Your task to perform on an android device: What's a good restaurant in San Diego? Image 0: 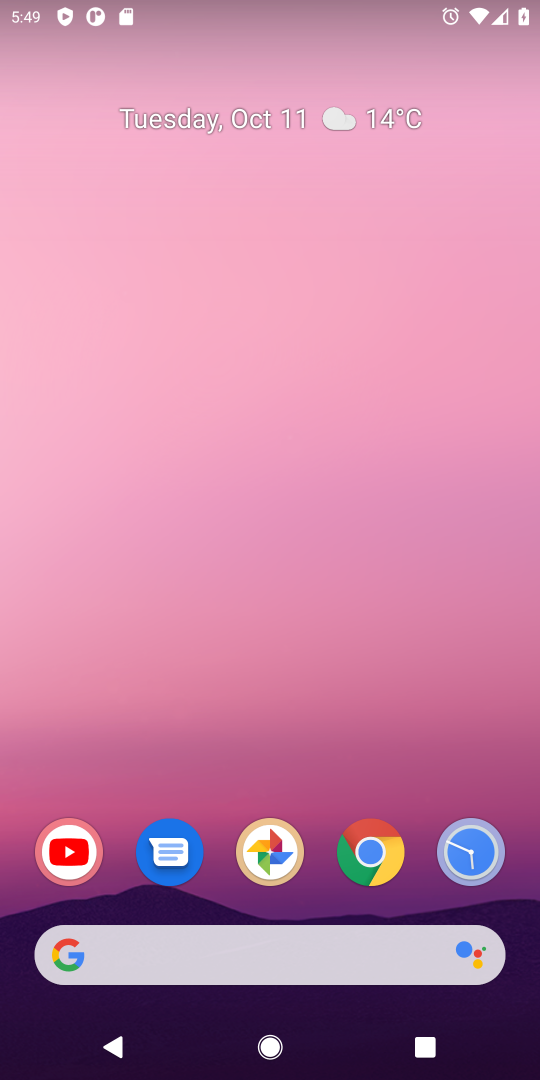
Step 0: click (360, 839)
Your task to perform on an android device: What's a good restaurant in San Diego? Image 1: 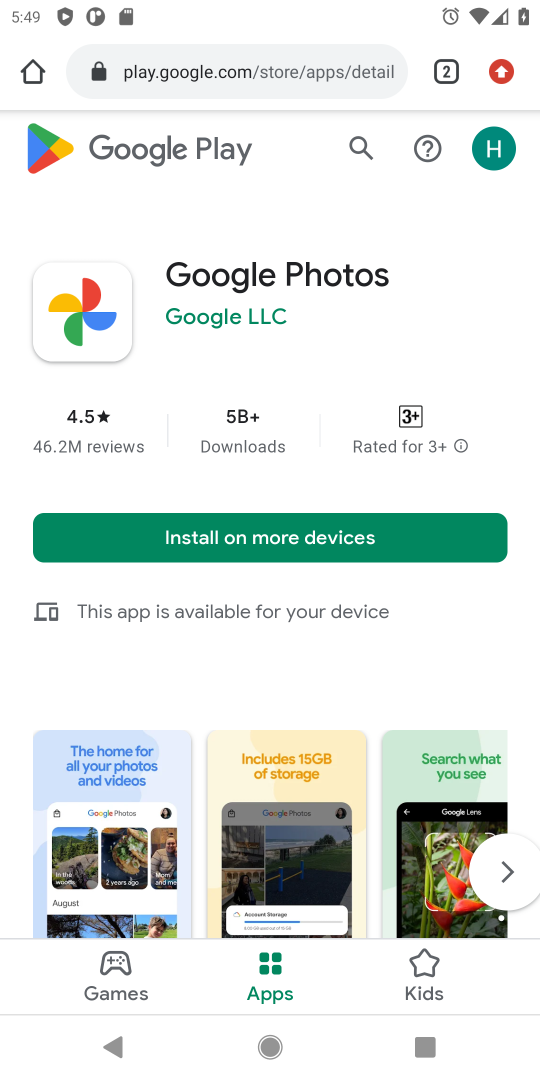
Step 1: press home button
Your task to perform on an android device: What's a good restaurant in San Diego? Image 2: 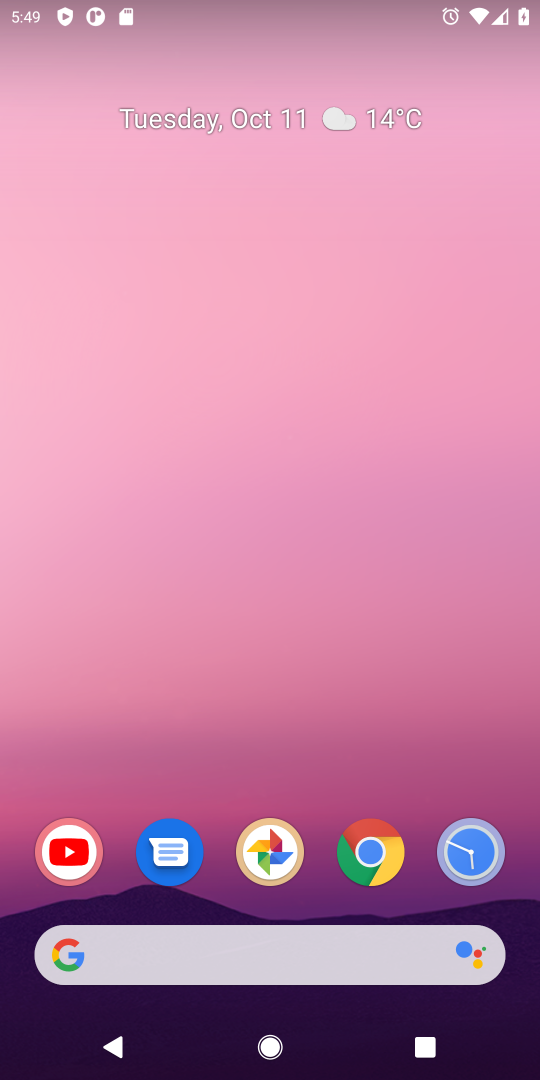
Step 2: click (357, 855)
Your task to perform on an android device: What's a good restaurant in San Diego? Image 3: 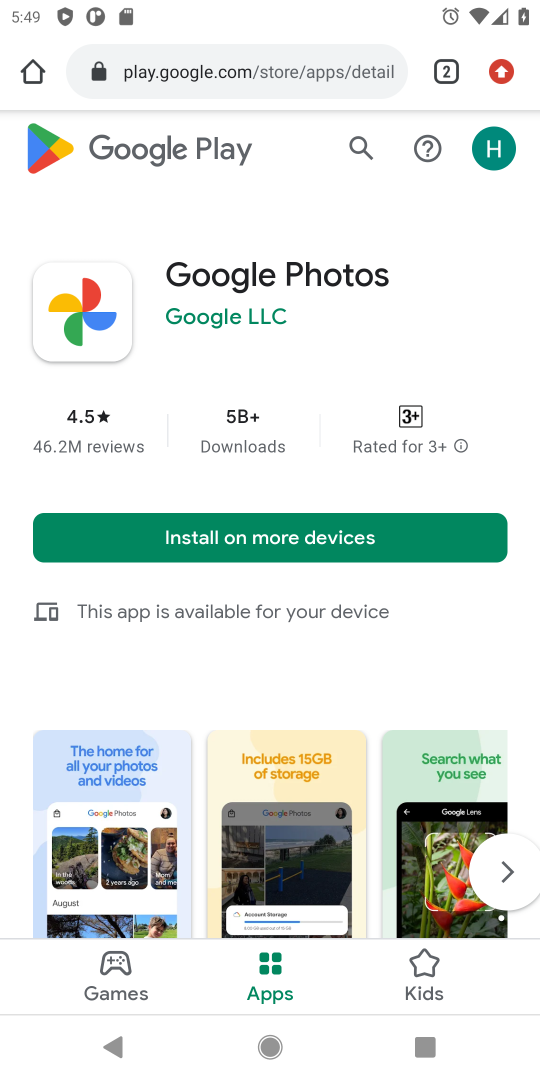
Step 3: click (173, 74)
Your task to perform on an android device: What's a good restaurant in San Diego? Image 4: 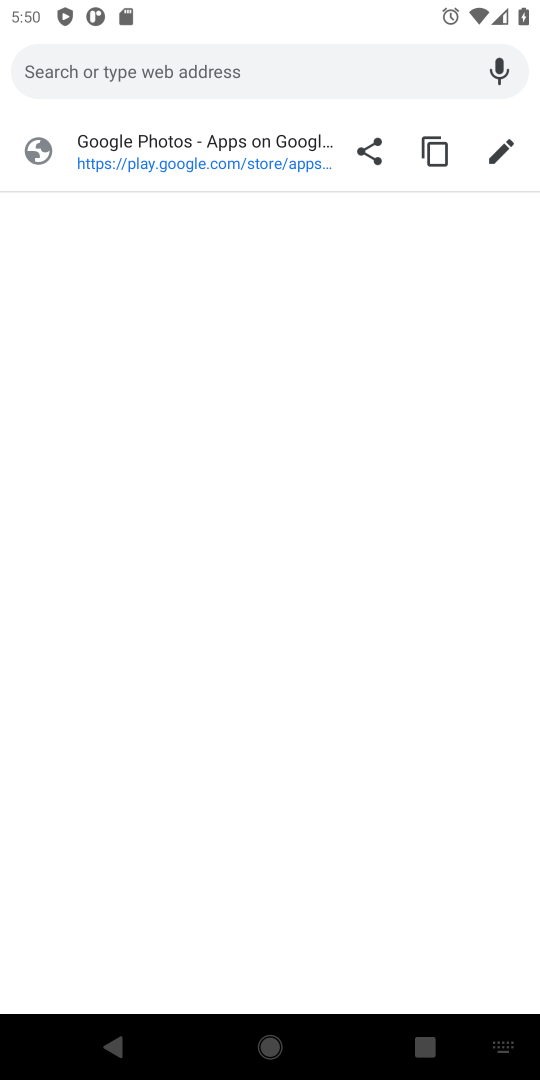
Step 4: type "good restaurant in San Diego"
Your task to perform on an android device: What's a good restaurant in San Diego? Image 5: 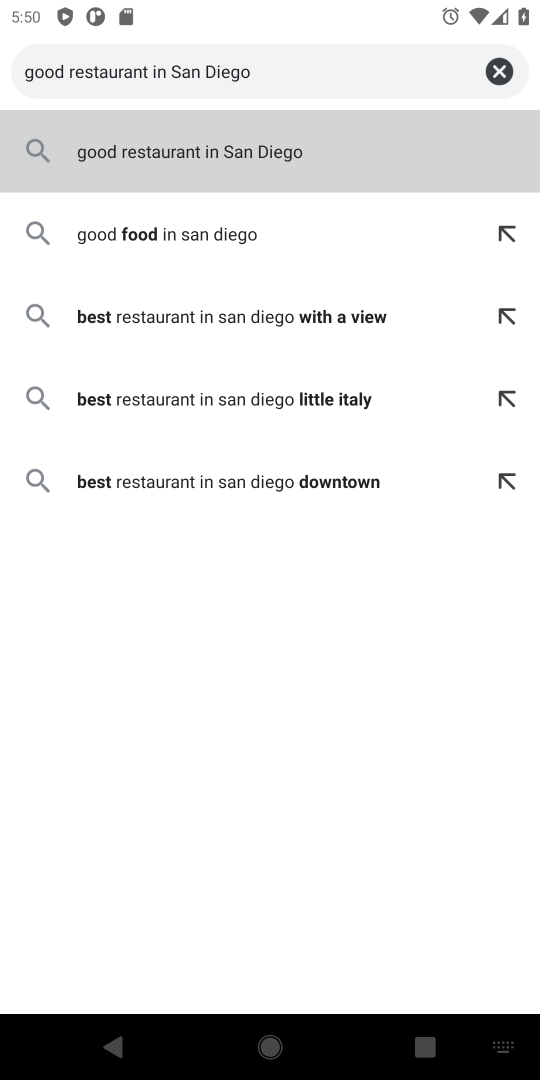
Step 5: click (105, 152)
Your task to perform on an android device: What's a good restaurant in San Diego? Image 6: 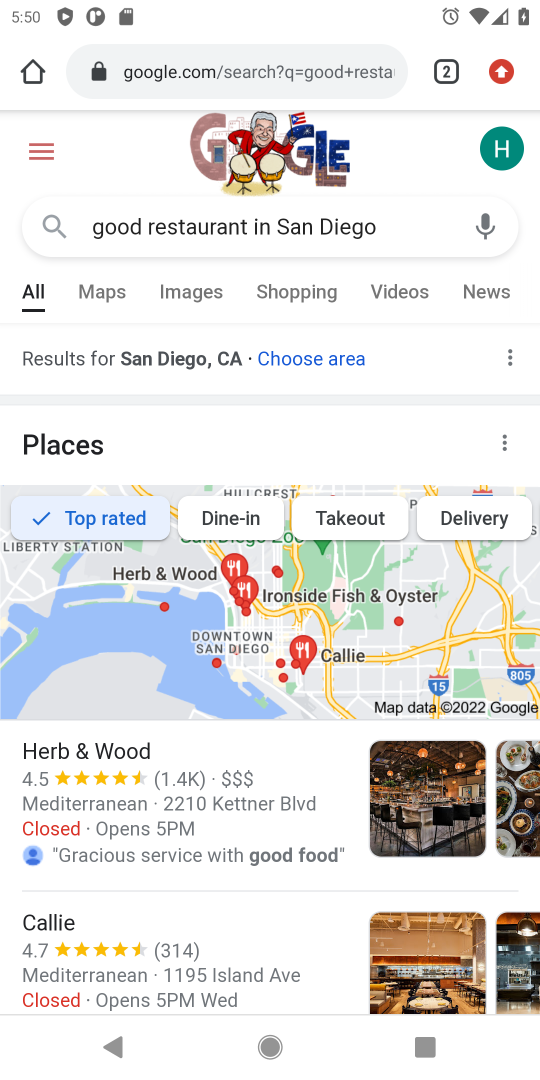
Step 6: task complete